Your task to perform on an android device: Open Android settings Image 0: 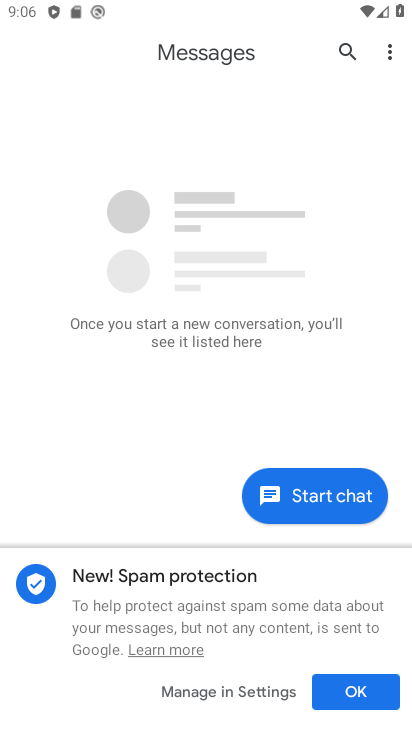
Step 0: press home button
Your task to perform on an android device: Open Android settings Image 1: 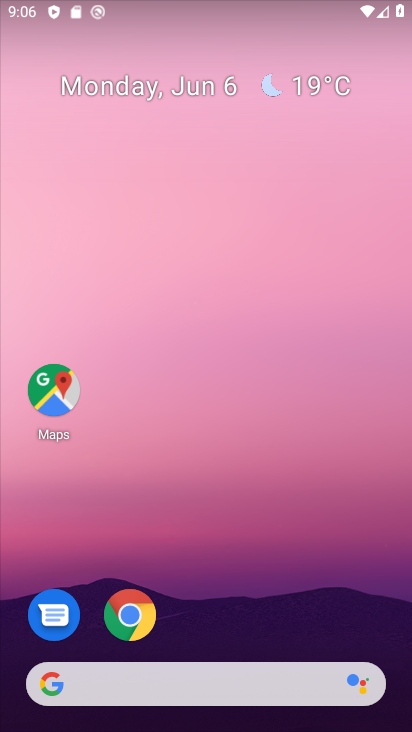
Step 1: drag from (295, 633) to (303, 180)
Your task to perform on an android device: Open Android settings Image 2: 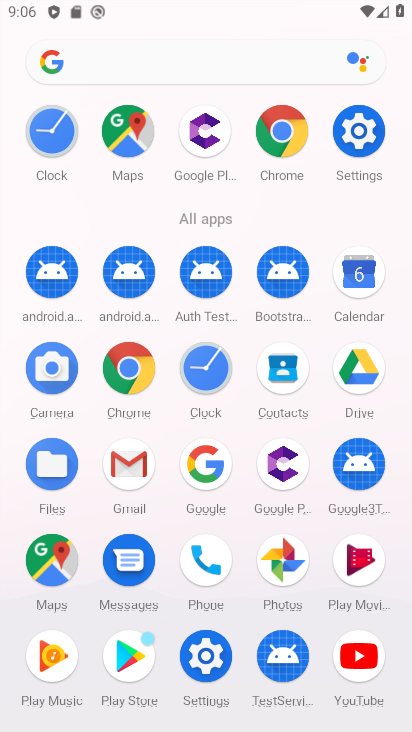
Step 2: click (342, 132)
Your task to perform on an android device: Open Android settings Image 3: 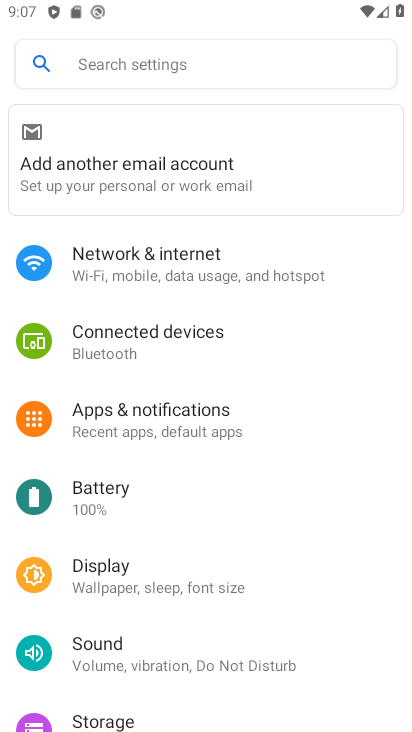
Step 3: task complete